Your task to perform on an android device: turn on airplane mode Image 0: 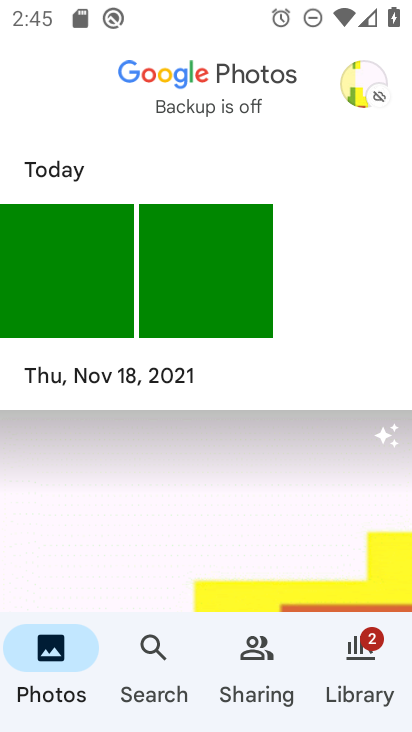
Step 0: press home button
Your task to perform on an android device: turn on airplane mode Image 1: 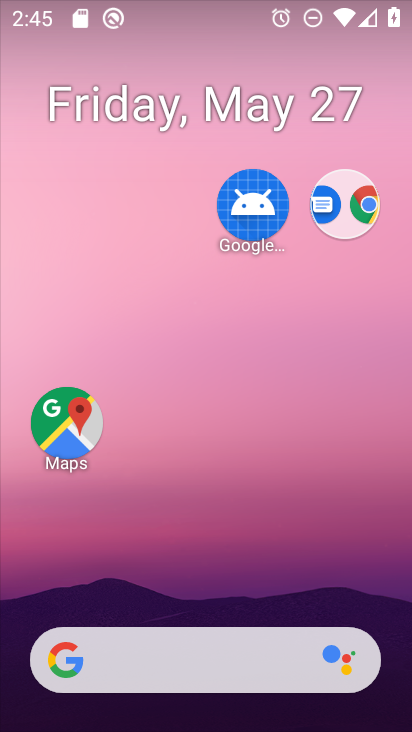
Step 1: drag from (196, 687) to (279, 22)
Your task to perform on an android device: turn on airplane mode Image 2: 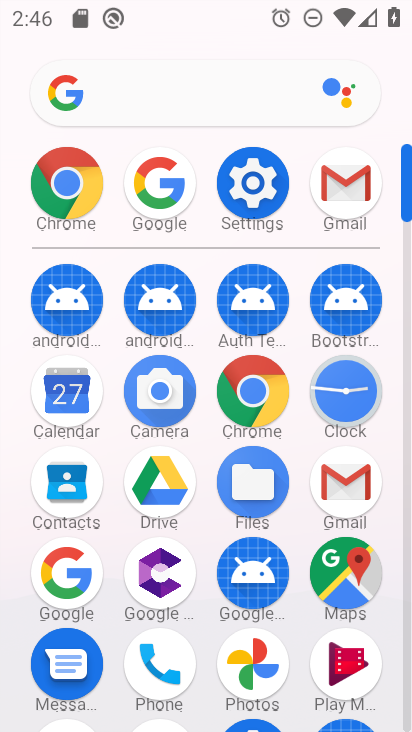
Step 2: click (260, 206)
Your task to perform on an android device: turn on airplane mode Image 3: 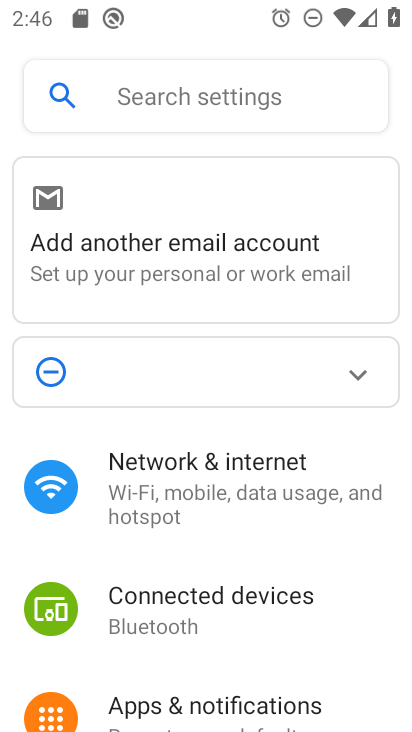
Step 3: click (231, 495)
Your task to perform on an android device: turn on airplane mode Image 4: 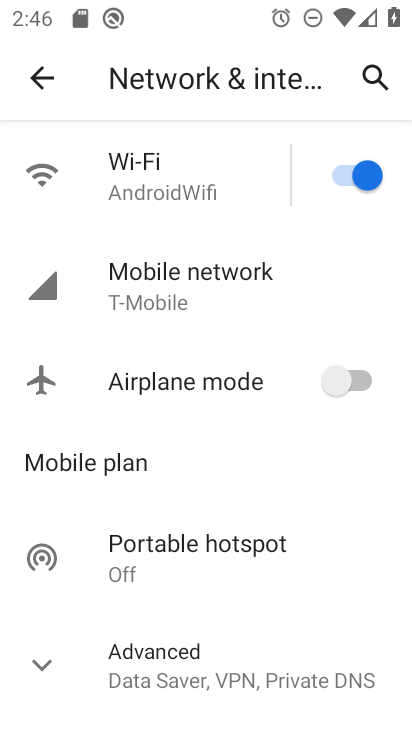
Step 4: click (207, 405)
Your task to perform on an android device: turn on airplane mode Image 5: 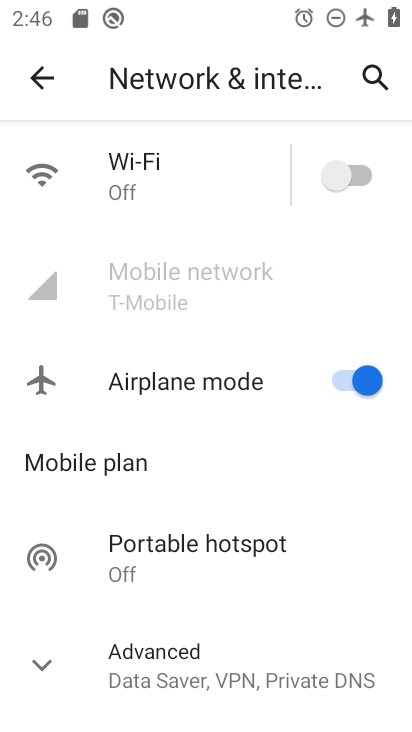
Step 5: task complete